Your task to perform on an android device: turn on sleep mode Image 0: 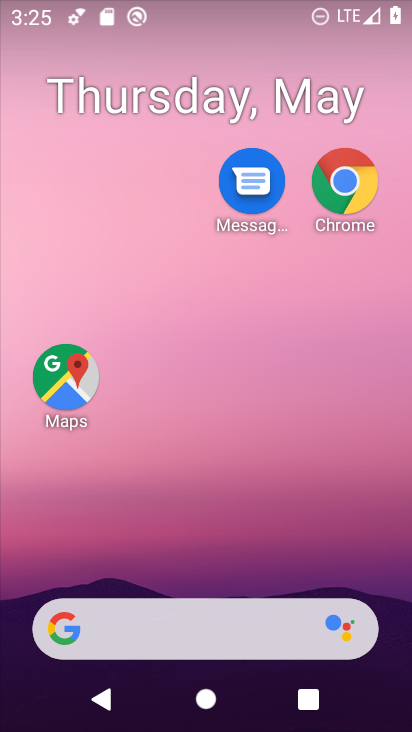
Step 0: drag from (367, 600) to (383, 93)
Your task to perform on an android device: turn on sleep mode Image 1: 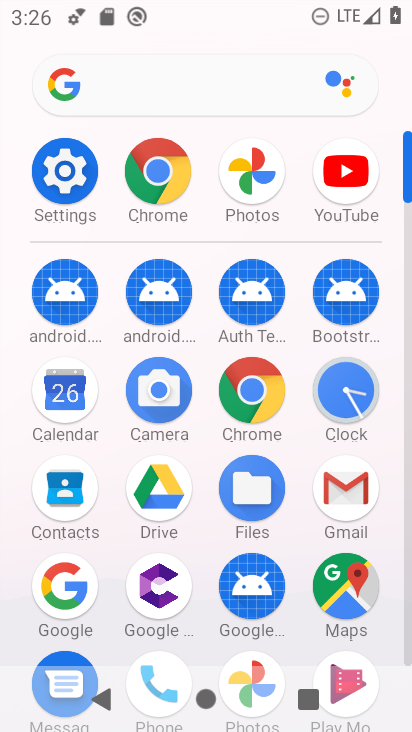
Step 1: click (63, 194)
Your task to perform on an android device: turn on sleep mode Image 2: 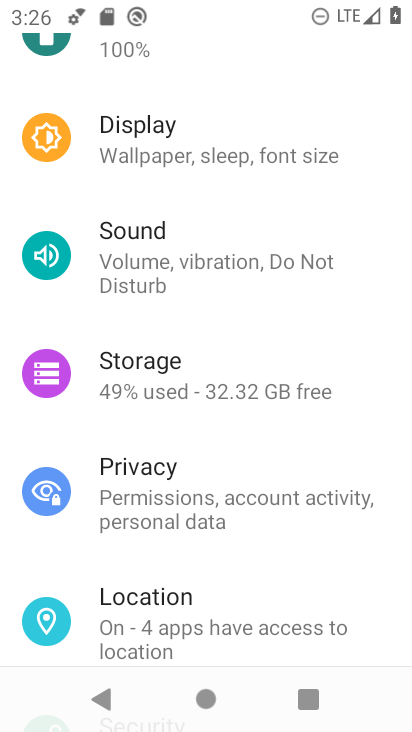
Step 2: task complete